Your task to perform on an android device: Go to eBay Image 0: 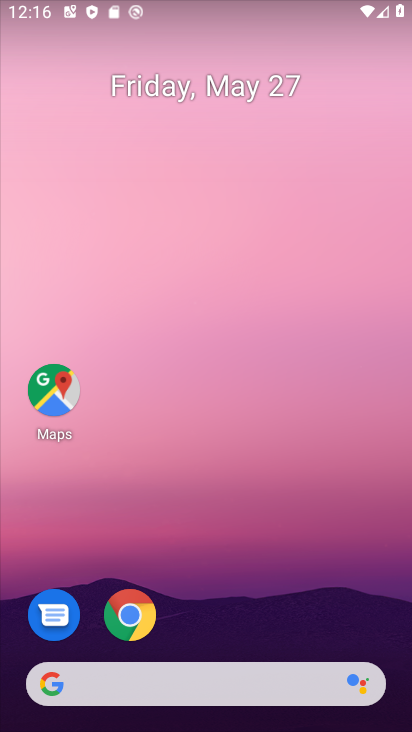
Step 0: drag from (168, 663) to (169, 5)
Your task to perform on an android device: Go to eBay Image 1: 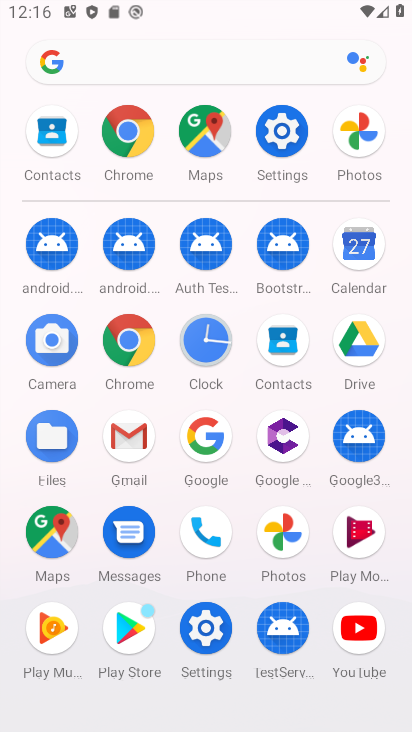
Step 1: click (145, 341)
Your task to perform on an android device: Go to eBay Image 2: 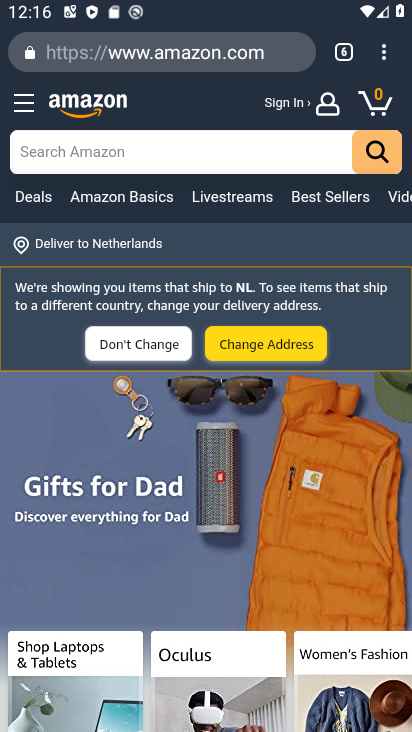
Step 2: click (249, 55)
Your task to perform on an android device: Go to eBay Image 3: 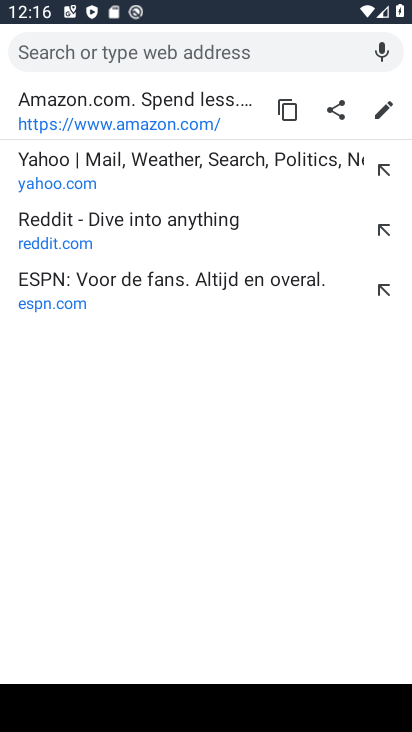
Step 3: type "ebay"
Your task to perform on an android device: Go to eBay Image 4: 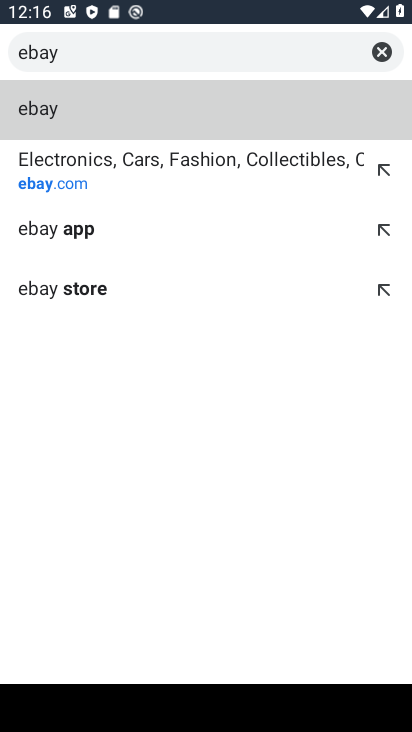
Step 4: click (58, 154)
Your task to perform on an android device: Go to eBay Image 5: 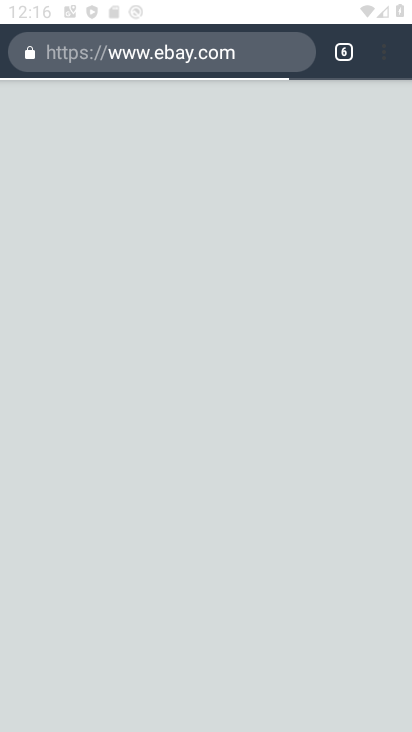
Step 5: task complete